Your task to perform on an android device: change the clock display to show seconds Image 0: 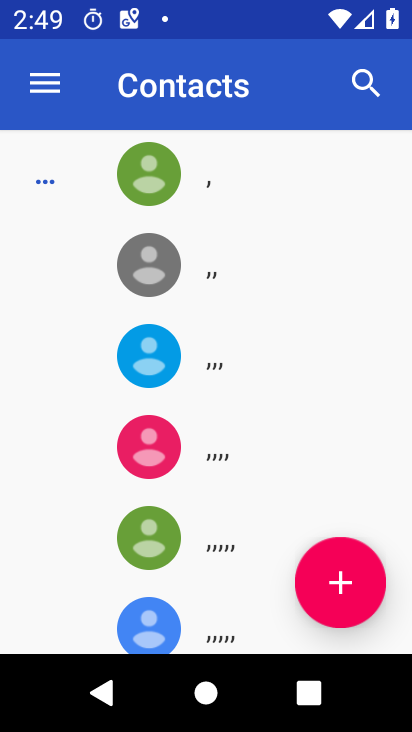
Step 0: press home button
Your task to perform on an android device: change the clock display to show seconds Image 1: 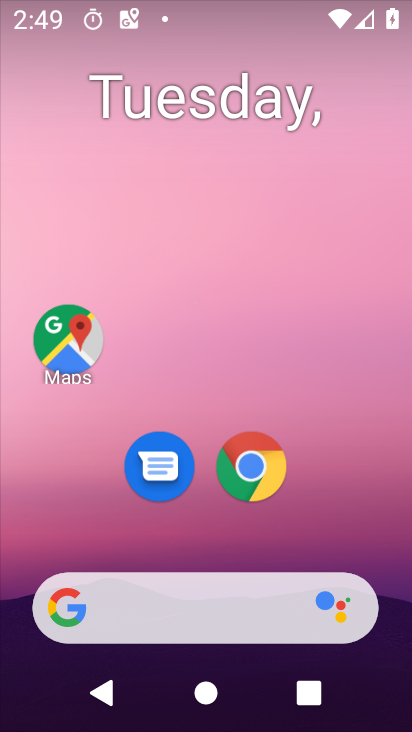
Step 1: drag from (363, 532) to (387, 163)
Your task to perform on an android device: change the clock display to show seconds Image 2: 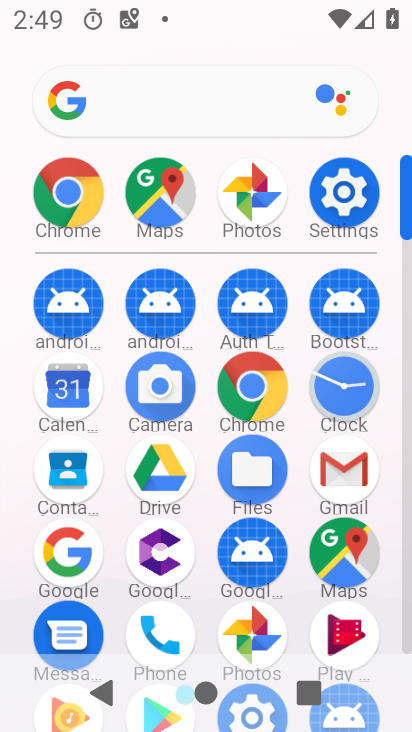
Step 2: click (369, 393)
Your task to perform on an android device: change the clock display to show seconds Image 3: 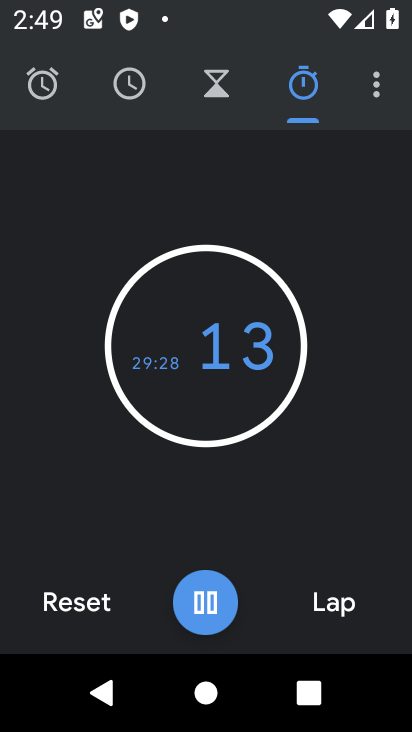
Step 3: click (376, 100)
Your task to perform on an android device: change the clock display to show seconds Image 4: 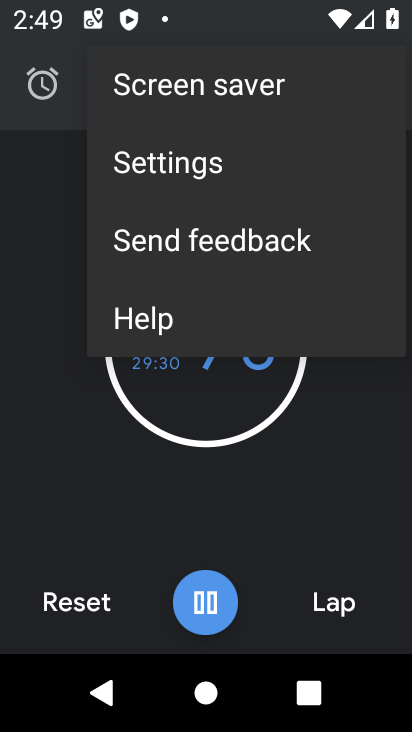
Step 4: click (243, 166)
Your task to perform on an android device: change the clock display to show seconds Image 5: 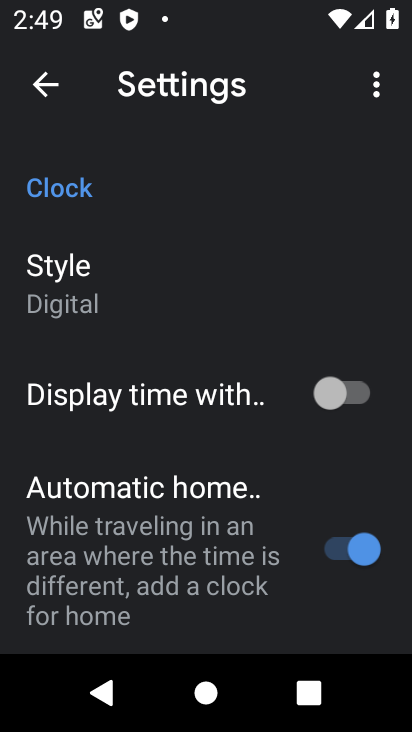
Step 5: drag from (282, 484) to (305, 379)
Your task to perform on an android device: change the clock display to show seconds Image 6: 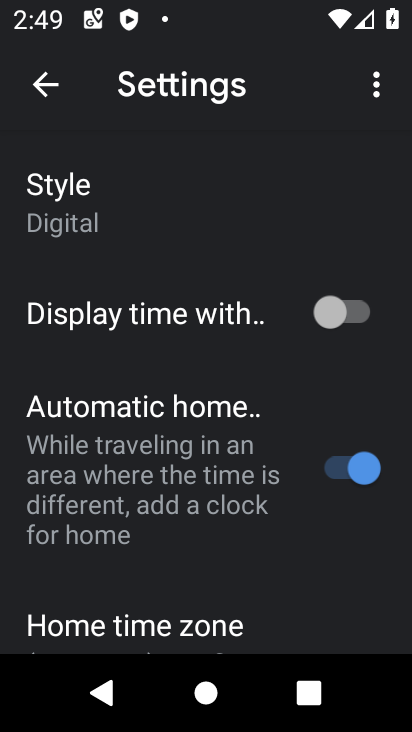
Step 6: click (332, 326)
Your task to perform on an android device: change the clock display to show seconds Image 7: 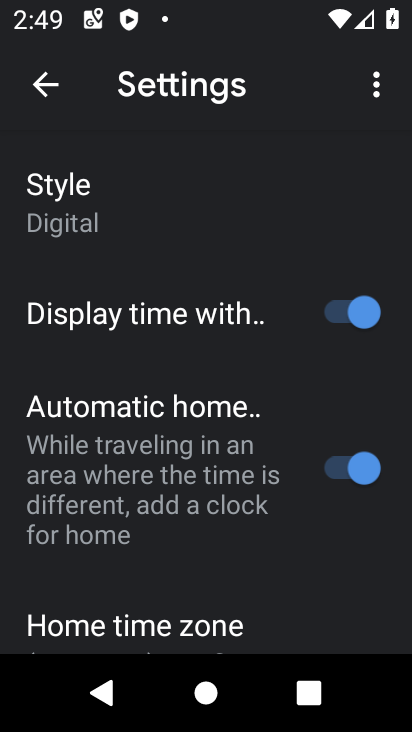
Step 7: task complete